Your task to perform on an android device: Go to display settings Image 0: 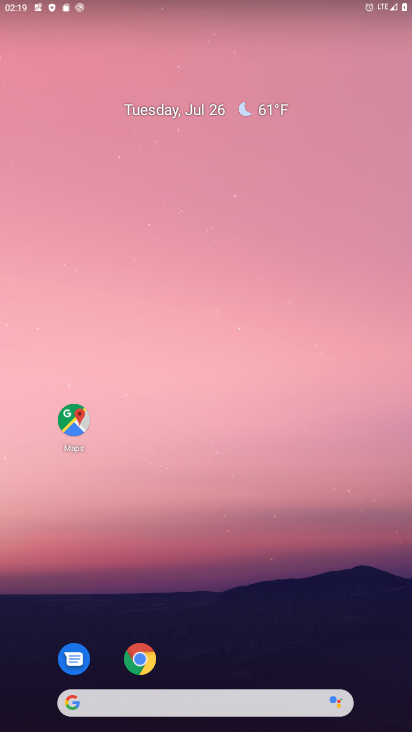
Step 0: drag from (249, 614) to (251, 39)
Your task to perform on an android device: Go to display settings Image 1: 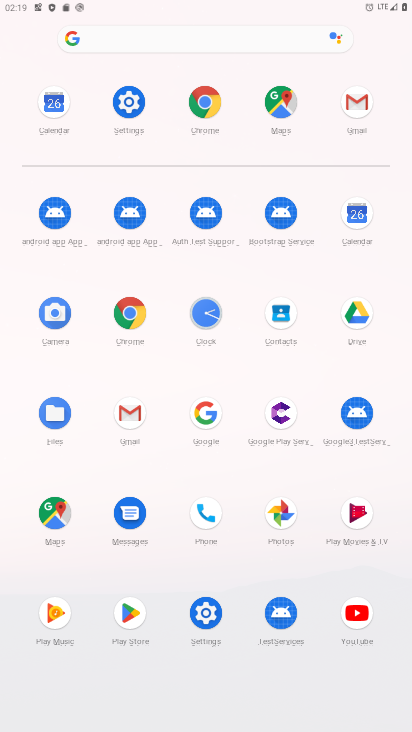
Step 1: click (132, 104)
Your task to perform on an android device: Go to display settings Image 2: 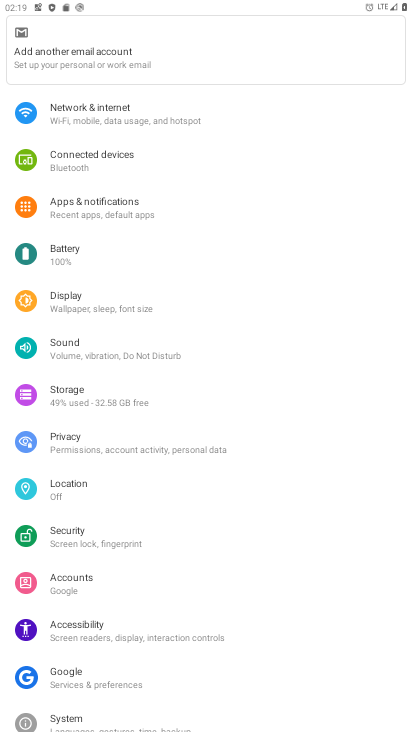
Step 2: click (95, 301)
Your task to perform on an android device: Go to display settings Image 3: 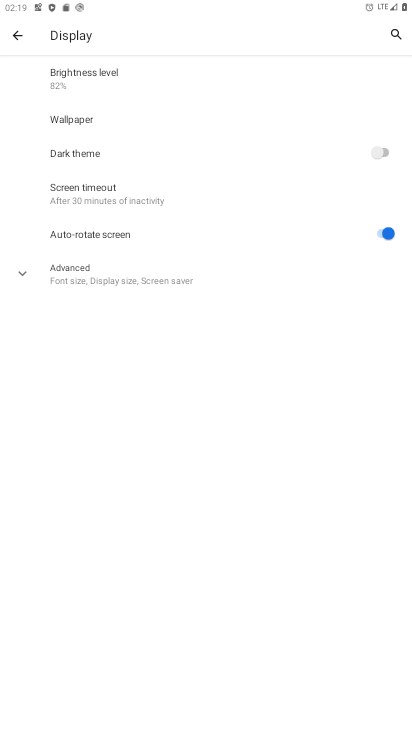
Step 3: task complete